Your task to perform on an android device: move an email to a new category in the gmail app Image 0: 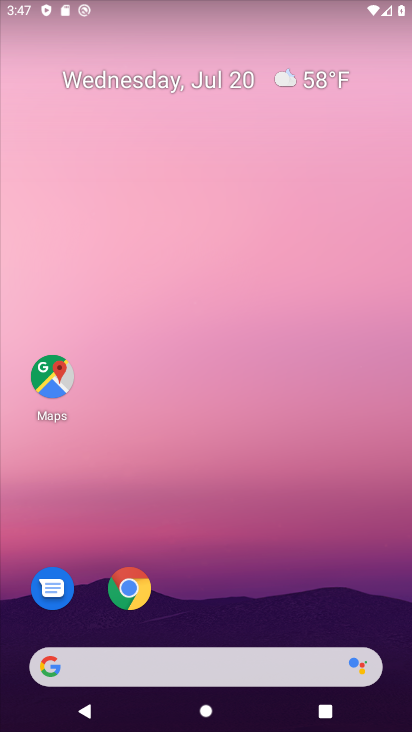
Step 0: drag from (227, 651) to (222, 208)
Your task to perform on an android device: move an email to a new category in the gmail app Image 1: 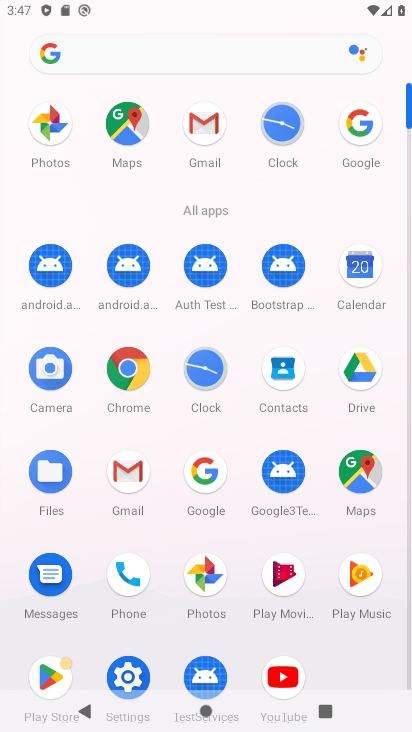
Step 1: click (207, 125)
Your task to perform on an android device: move an email to a new category in the gmail app Image 2: 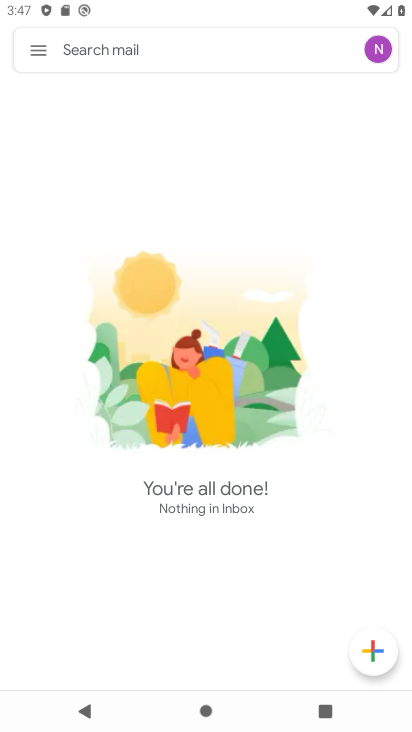
Step 2: task complete